Your task to perform on an android device: search for starred emails in the gmail app Image 0: 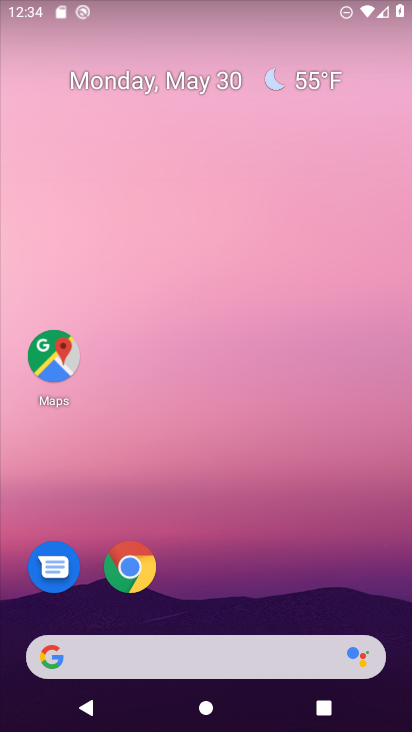
Step 0: drag from (234, 607) to (231, 84)
Your task to perform on an android device: search for starred emails in the gmail app Image 1: 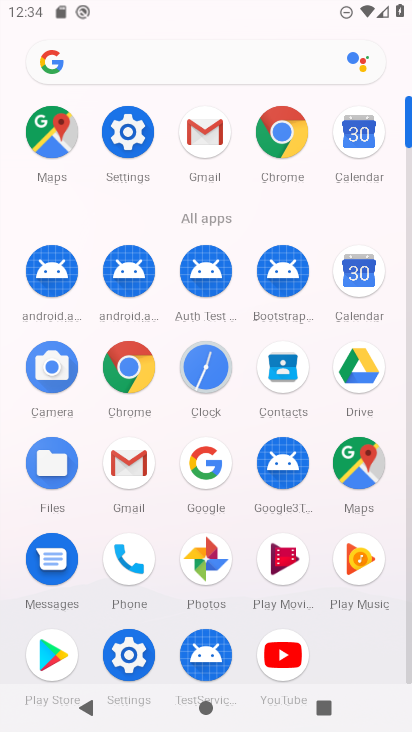
Step 1: click (205, 128)
Your task to perform on an android device: search for starred emails in the gmail app Image 2: 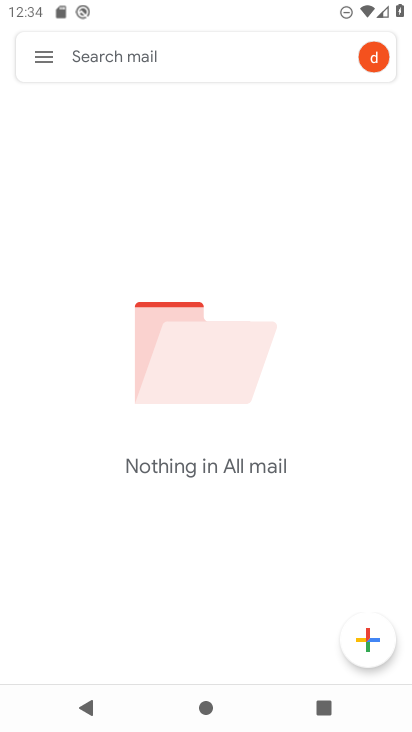
Step 2: click (37, 44)
Your task to perform on an android device: search for starred emails in the gmail app Image 3: 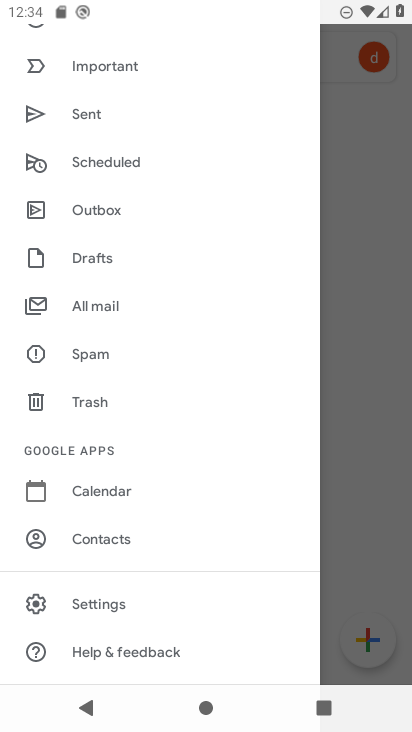
Step 3: drag from (124, 203) to (134, 590)
Your task to perform on an android device: search for starred emails in the gmail app Image 4: 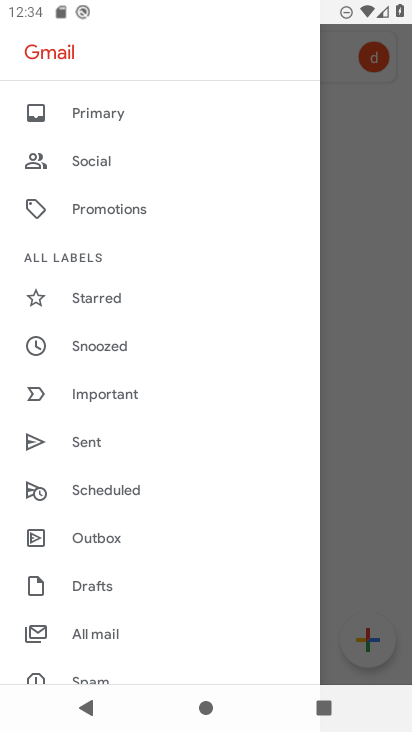
Step 4: click (131, 291)
Your task to perform on an android device: search for starred emails in the gmail app Image 5: 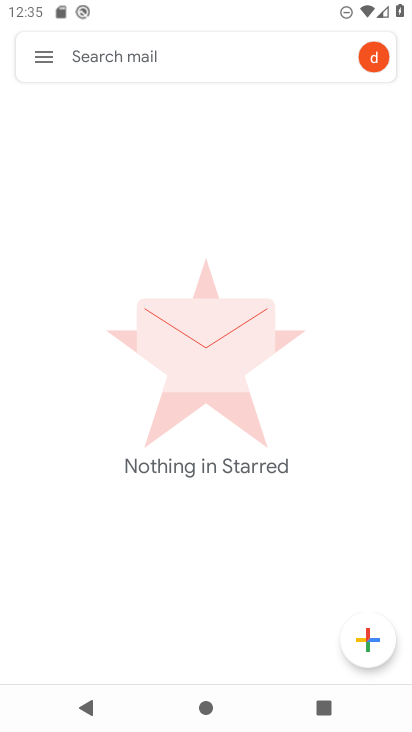
Step 5: task complete